Your task to perform on an android device: see tabs open on other devices in the chrome app Image 0: 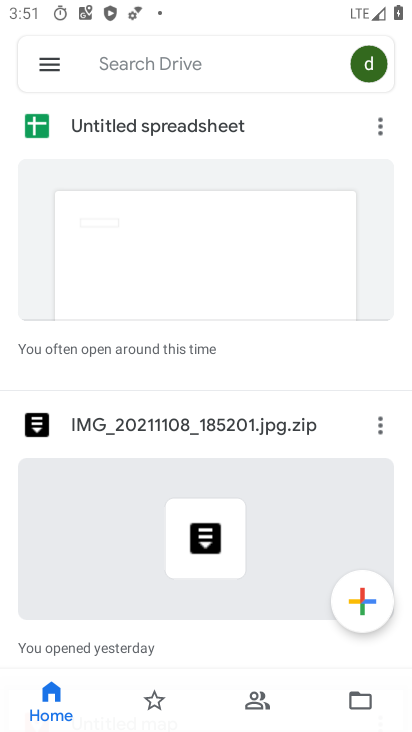
Step 0: press home button
Your task to perform on an android device: see tabs open on other devices in the chrome app Image 1: 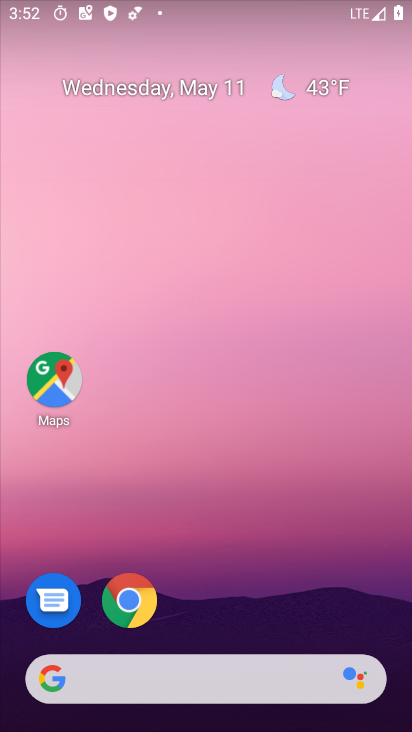
Step 1: click (132, 606)
Your task to perform on an android device: see tabs open on other devices in the chrome app Image 2: 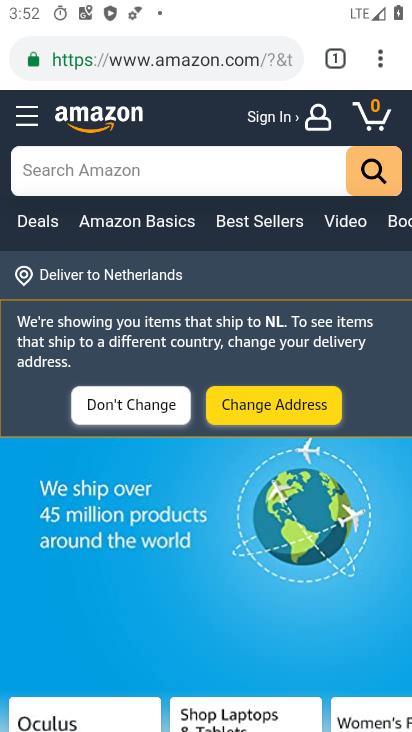
Step 2: task complete